Your task to perform on an android device: Go to network settings Image 0: 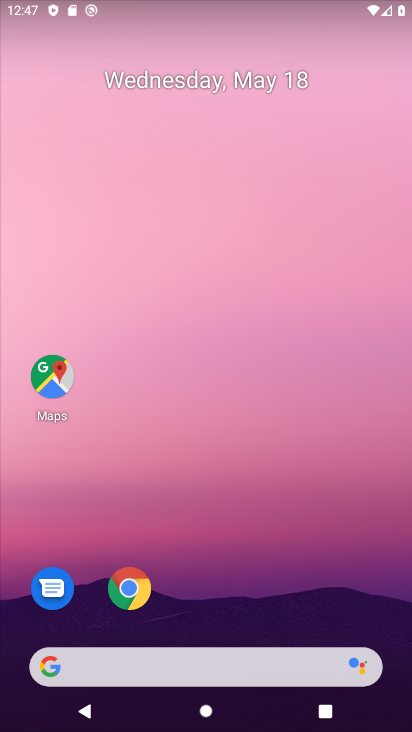
Step 0: drag from (338, 567) to (332, 203)
Your task to perform on an android device: Go to network settings Image 1: 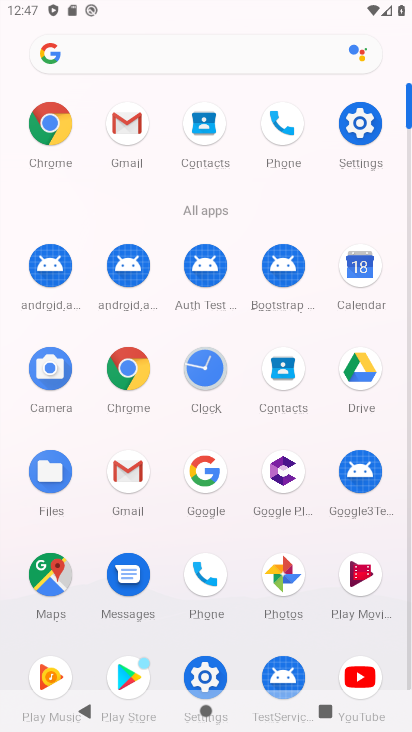
Step 1: click (365, 135)
Your task to perform on an android device: Go to network settings Image 2: 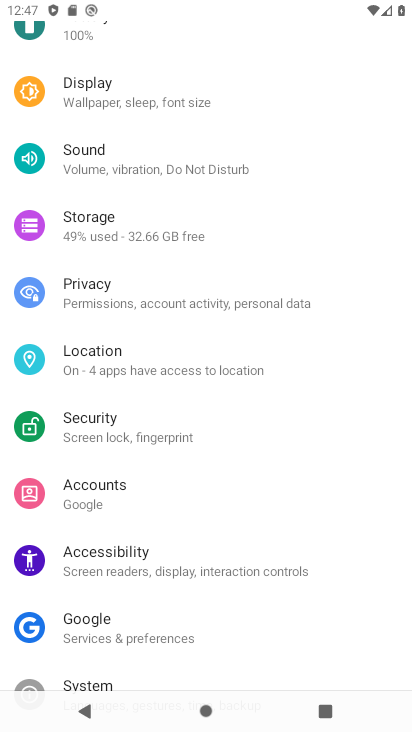
Step 2: drag from (351, 592) to (346, 451)
Your task to perform on an android device: Go to network settings Image 3: 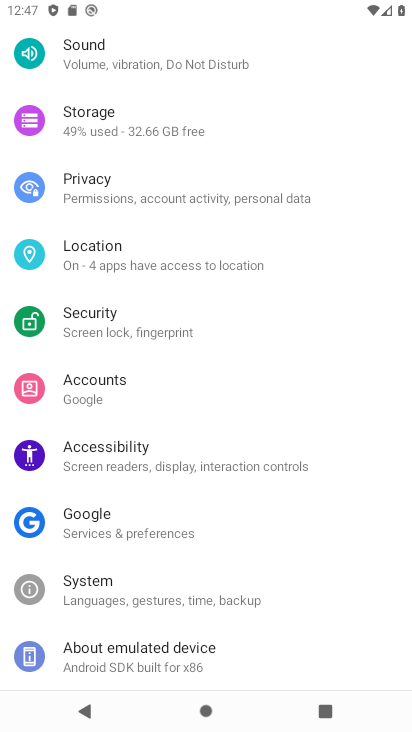
Step 3: drag from (355, 639) to (355, 487)
Your task to perform on an android device: Go to network settings Image 4: 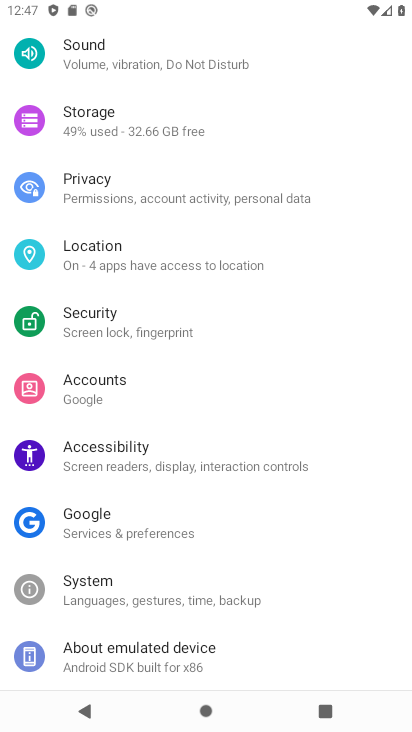
Step 4: drag from (352, 420) to (352, 508)
Your task to perform on an android device: Go to network settings Image 5: 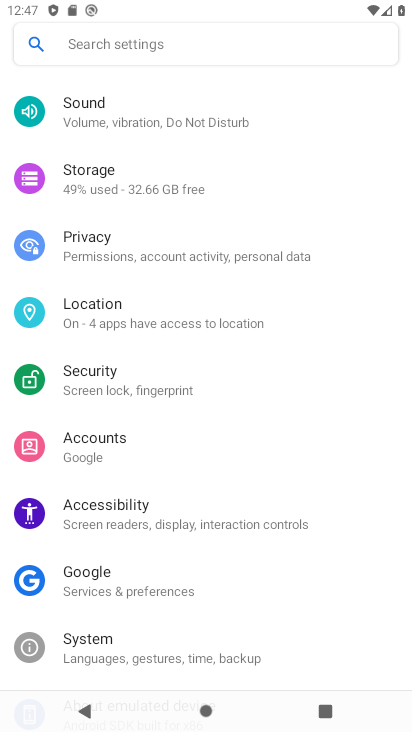
Step 5: drag from (354, 373) to (349, 473)
Your task to perform on an android device: Go to network settings Image 6: 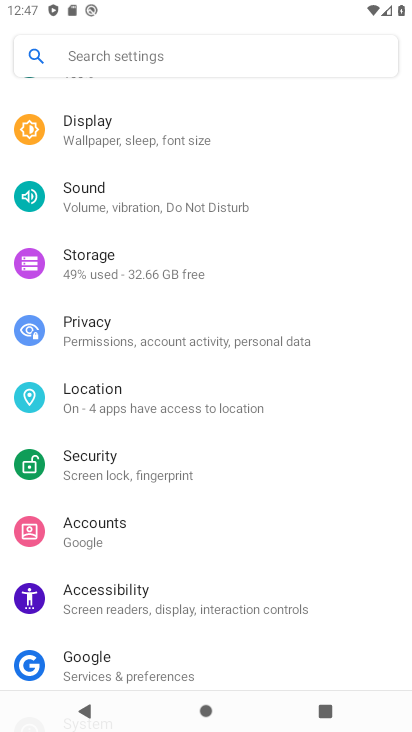
Step 6: drag from (348, 332) to (347, 423)
Your task to perform on an android device: Go to network settings Image 7: 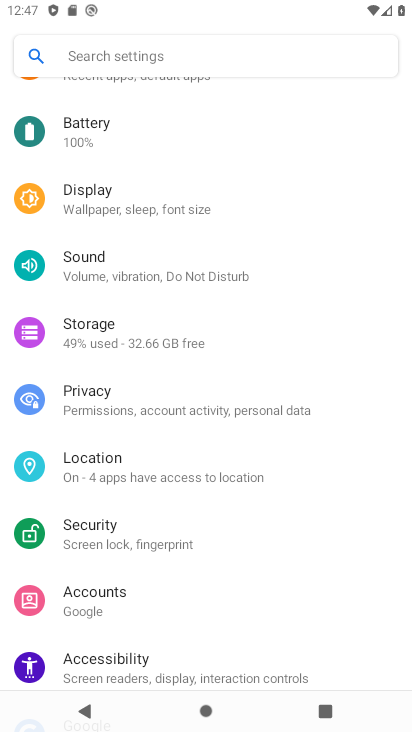
Step 7: drag from (345, 270) to (343, 451)
Your task to perform on an android device: Go to network settings Image 8: 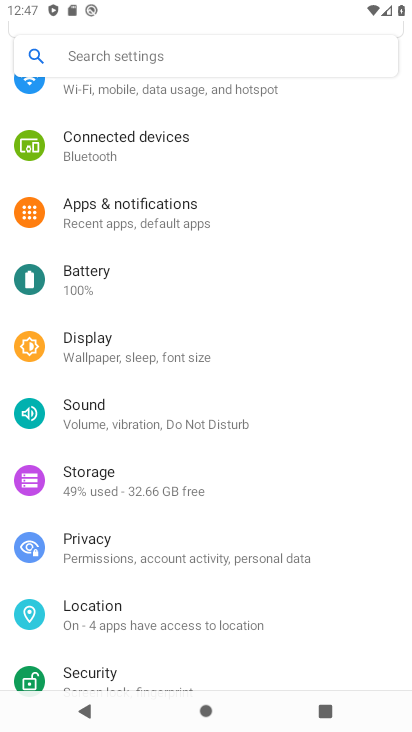
Step 8: drag from (345, 301) to (339, 409)
Your task to perform on an android device: Go to network settings Image 9: 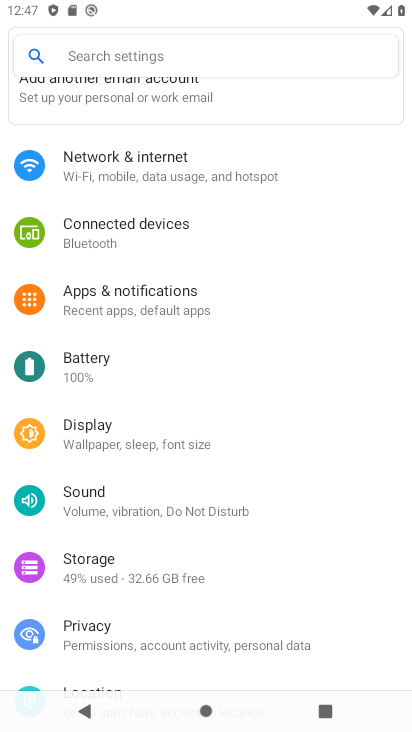
Step 9: drag from (351, 291) to (350, 402)
Your task to perform on an android device: Go to network settings Image 10: 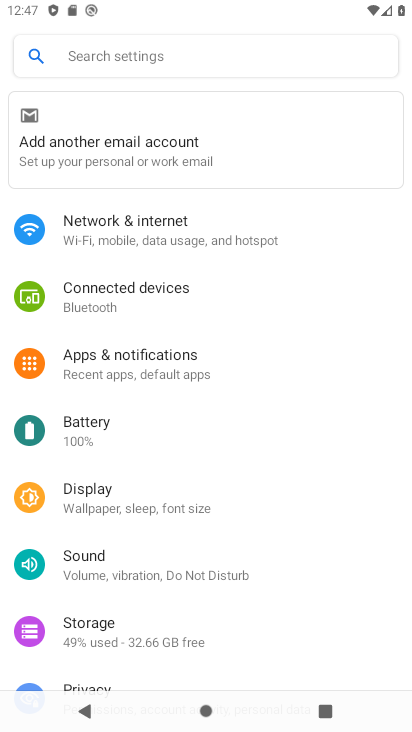
Step 10: drag from (343, 308) to (345, 424)
Your task to perform on an android device: Go to network settings Image 11: 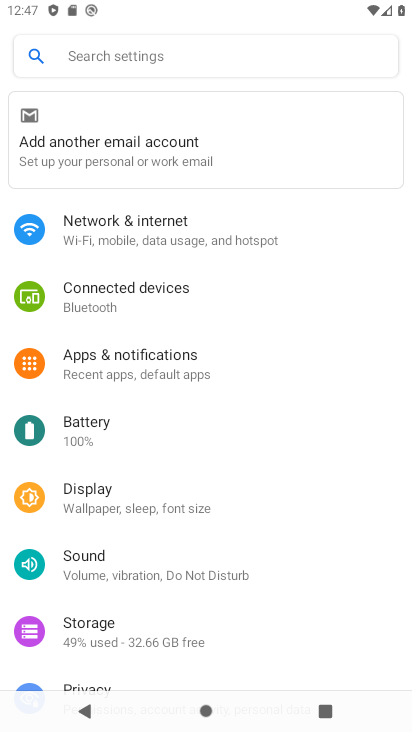
Step 11: click (226, 228)
Your task to perform on an android device: Go to network settings Image 12: 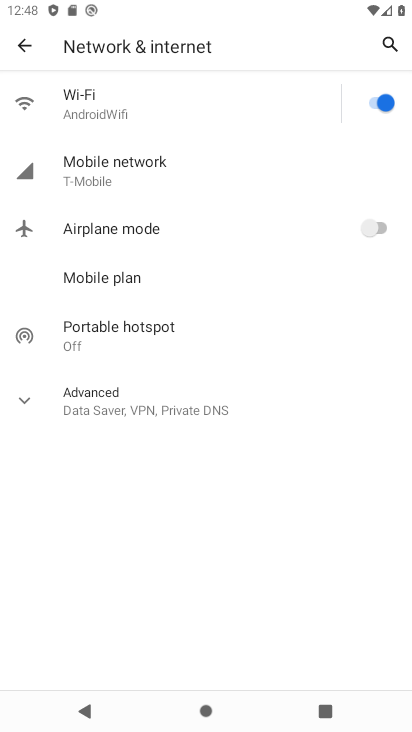
Step 12: task complete